Your task to perform on an android device: toggle airplane mode Image 0: 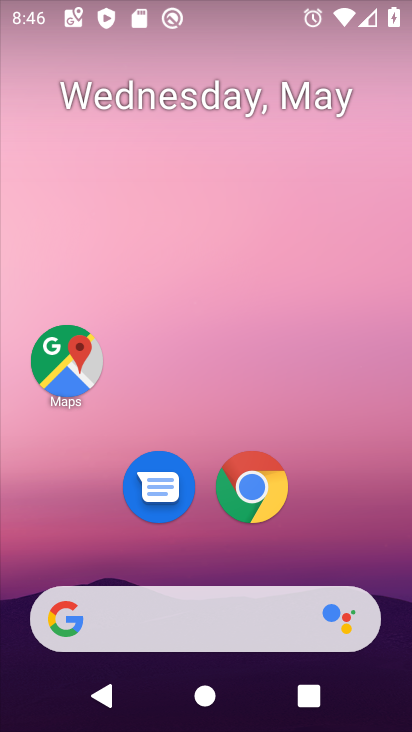
Step 0: drag from (258, 13) to (261, 489)
Your task to perform on an android device: toggle airplane mode Image 1: 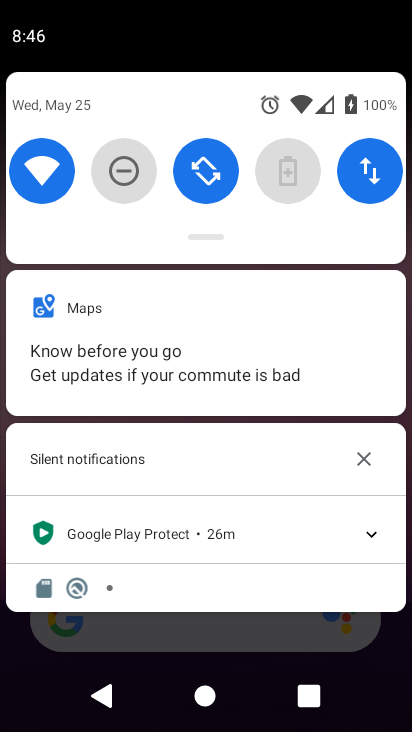
Step 1: drag from (221, 235) to (214, 686)
Your task to perform on an android device: toggle airplane mode Image 2: 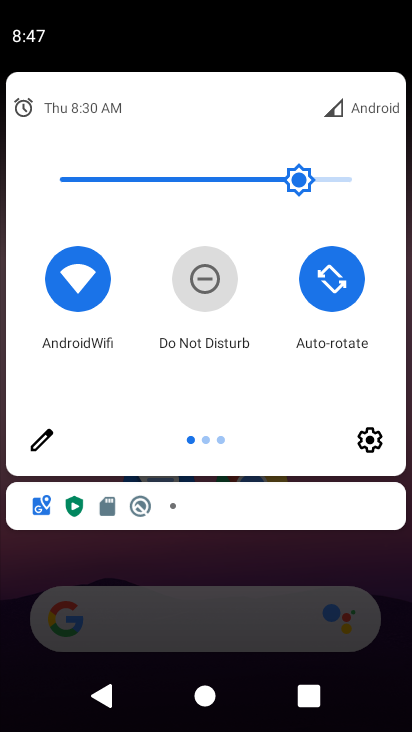
Step 2: drag from (358, 306) to (19, 324)
Your task to perform on an android device: toggle airplane mode Image 3: 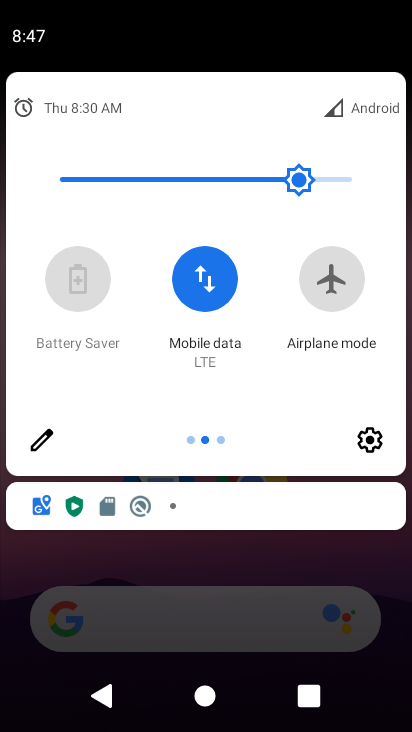
Step 3: click (336, 280)
Your task to perform on an android device: toggle airplane mode Image 4: 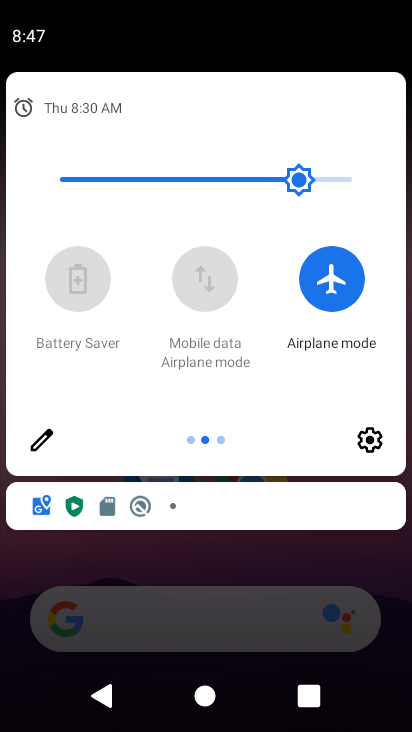
Step 4: task complete